Your task to perform on an android device: change timer sound Image 0: 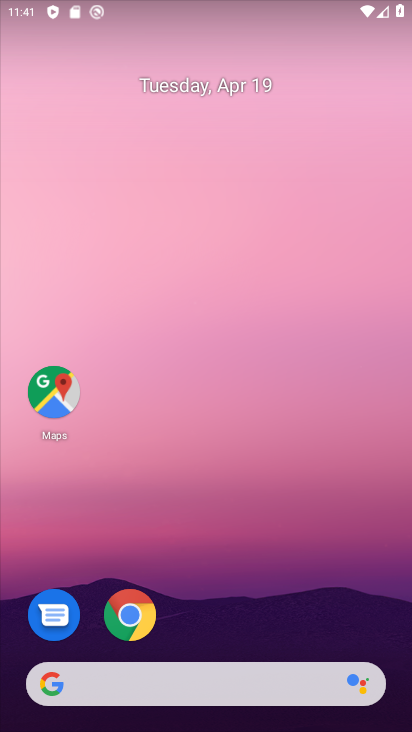
Step 0: drag from (222, 575) to (258, 175)
Your task to perform on an android device: change timer sound Image 1: 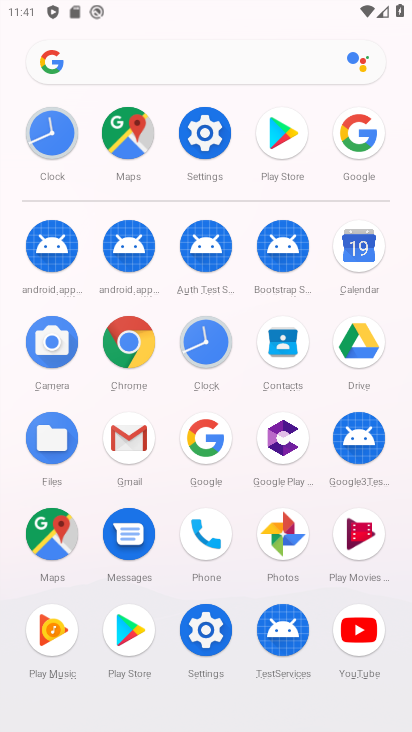
Step 1: click (205, 345)
Your task to perform on an android device: change timer sound Image 2: 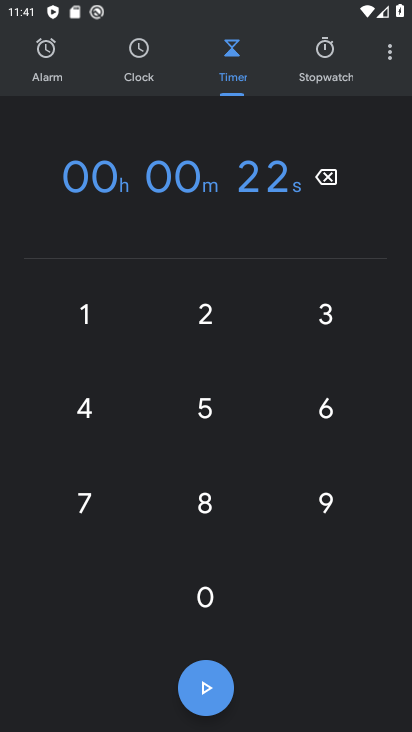
Step 2: click (381, 49)
Your task to perform on an android device: change timer sound Image 3: 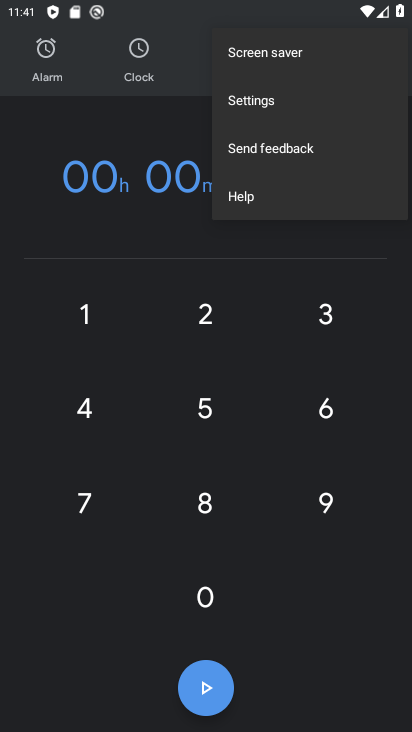
Step 3: click (328, 97)
Your task to perform on an android device: change timer sound Image 4: 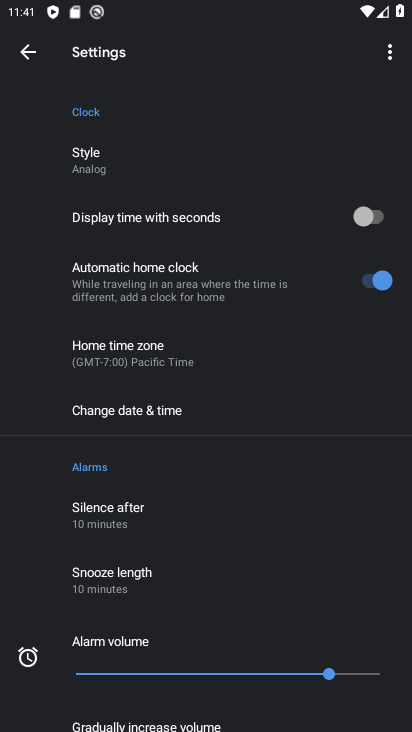
Step 4: drag from (223, 543) to (237, 181)
Your task to perform on an android device: change timer sound Image 5: 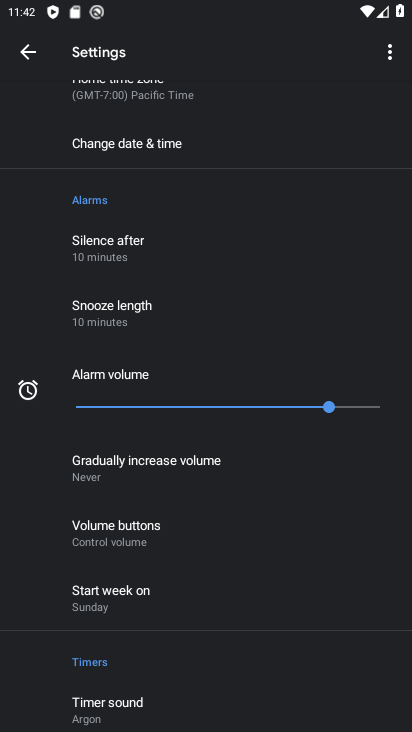
Step 5: click (127, 709)
Your task to perform on an android device: change timer sound Image 6: 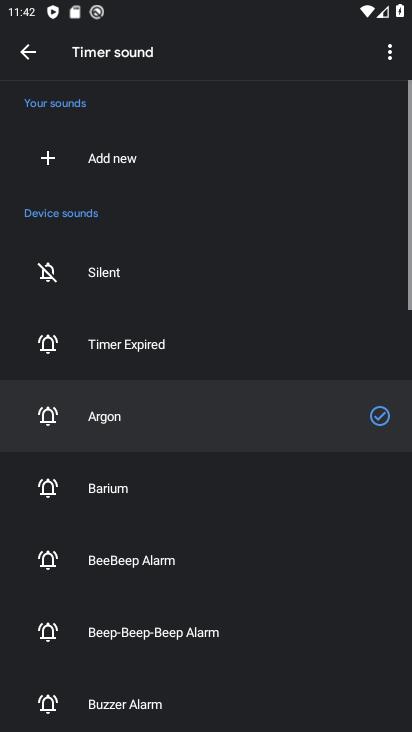
Step 6: click (118, 504)
Your task to perform on an android device: change timer sound Image 7: 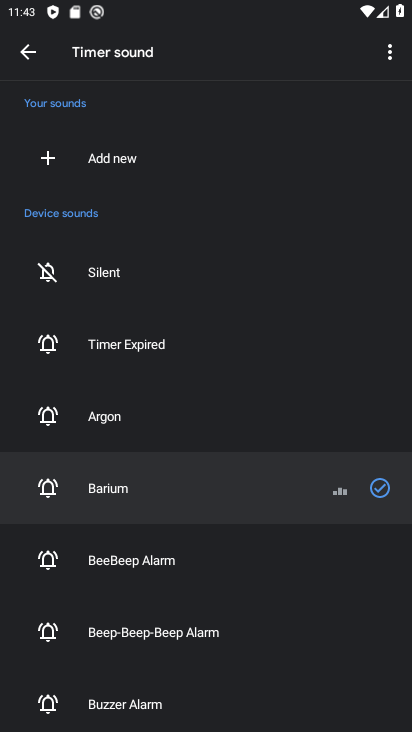
Step 7: task complete